Your task to perform on an android device: Open the stopwatch Image 0: 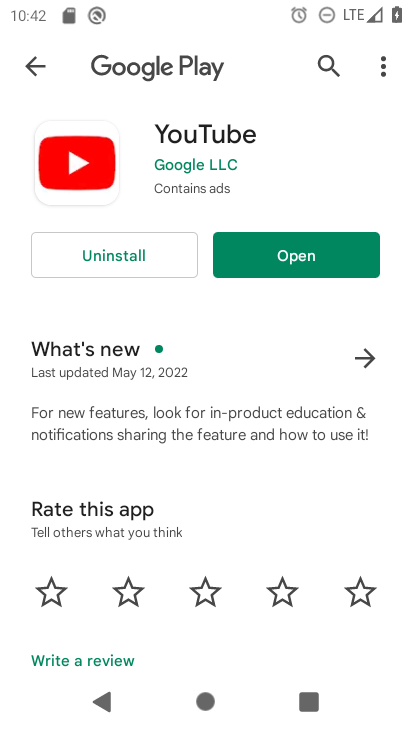
Step 0: press home button
Your task to perform on an android device: Open the stopwatch Image 1: 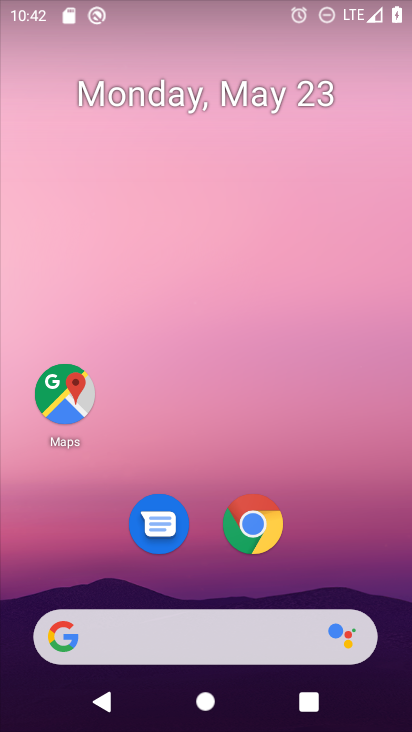
Step 1: drag from (189, 463) to (207, 30)
Your task to perform on an android device: Open the stopwatch Image 2: 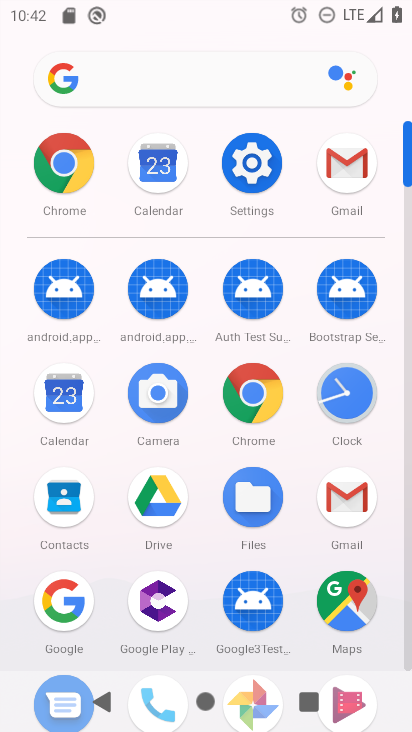
Step 2: click (242, 158)
Your task to perform on an android device: Open the stopwatch Image 3: 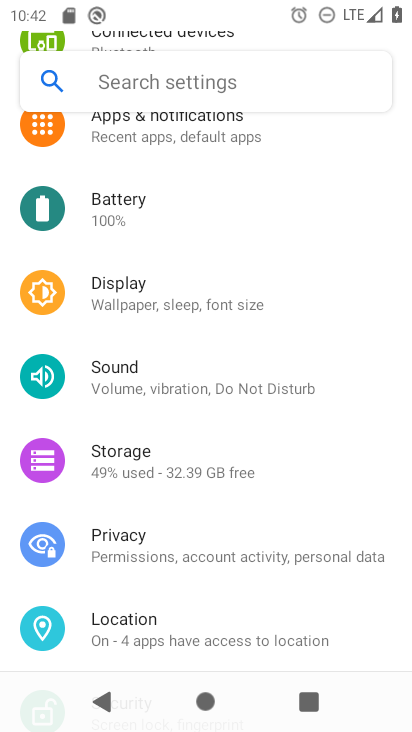
Step 3: press home button
Your task to perform on an android device: Open the stopwatch Image 4: 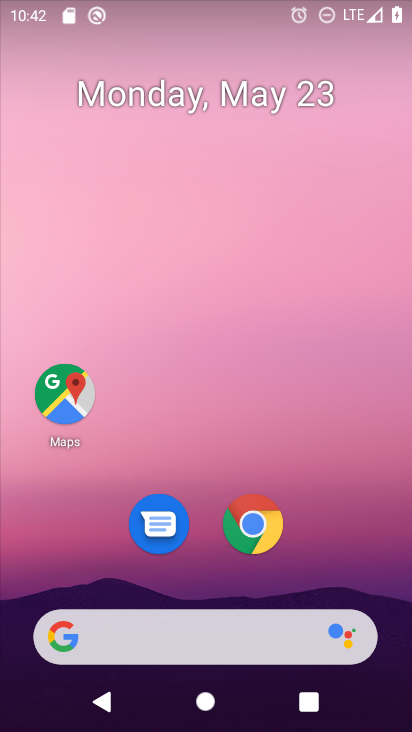
Step 4: drag from (257, 479) to (277, 35)
Your task to perform on an android device: Open the stopwatch Image 5: 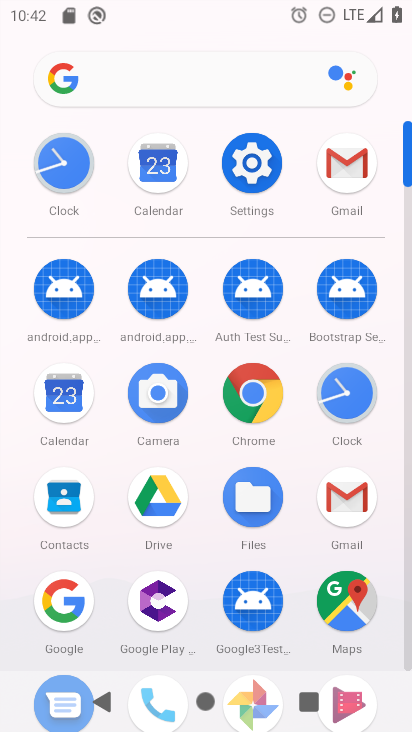
Step 5: click (329, 389)
Your task to perform on an android device: Open the stopwatch Image 6: 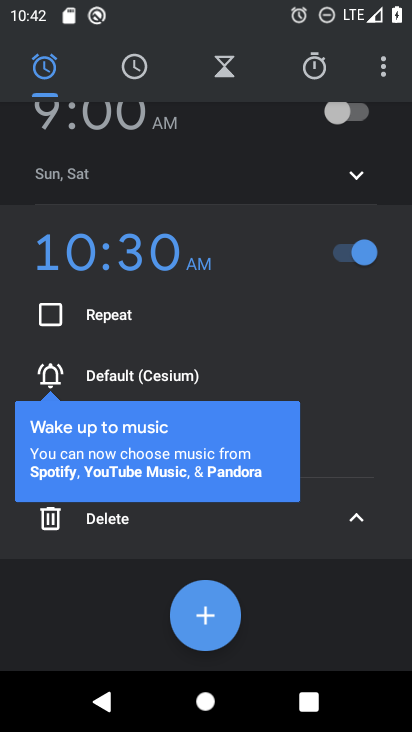
Step 6: click (314, 60)
Your task to perform on an android device: Open the stopwatch Image 7: 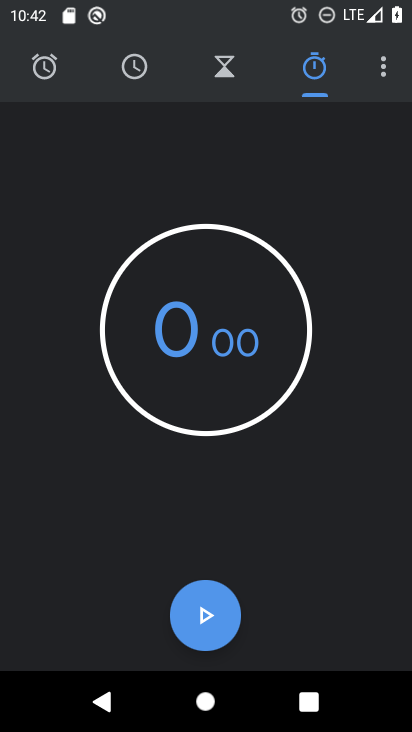
Step 7: task complete